Your task to perform on an android device: toggle notifications settings in the gmail app Image 0: 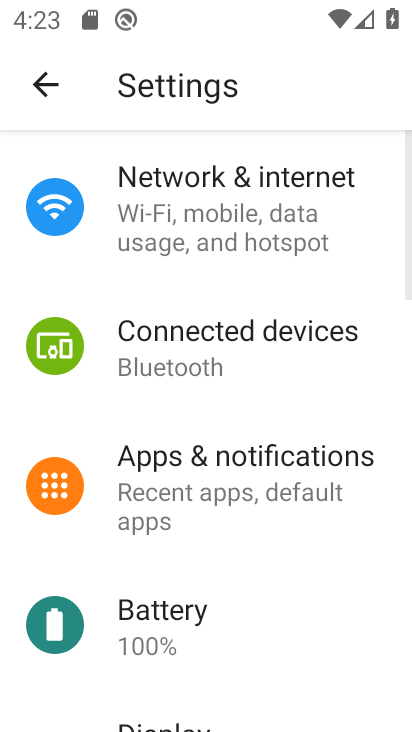
Step 0: press home button
Your task to perform on an android device: toggle notifications settings in the gmail app Image 1: 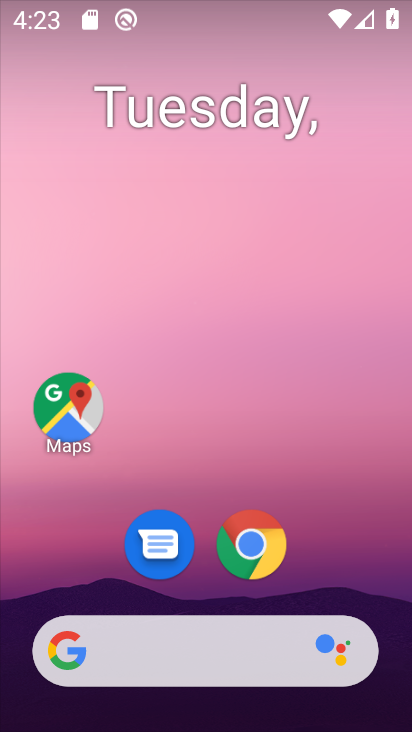
Step 1: drag from (196, 595) to (210, 299)
Your task to perform on an android device: toggle notifications settings in the gmail app Image 2: 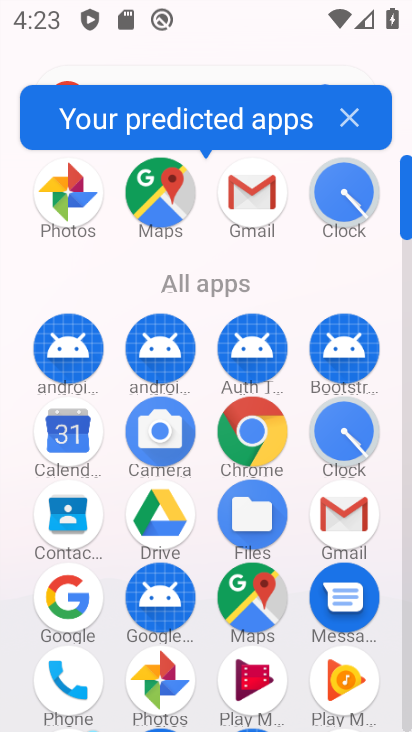
Step 2: drag from (191, 554) to (215, 266)
Your task to perform on an android device: toggle notifications settings in the gmail app Image 3: 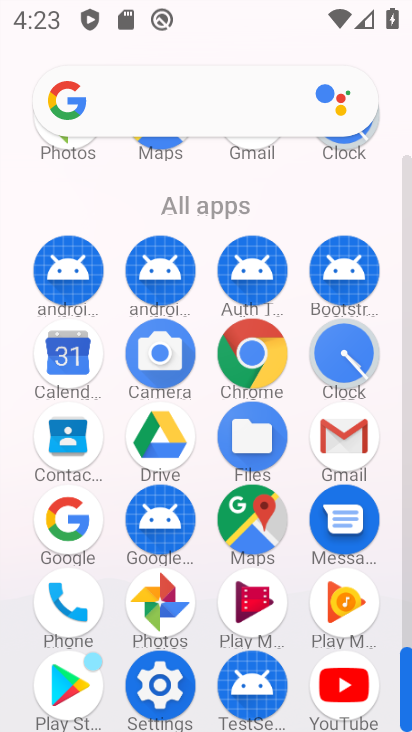
Step 3: click (341, 445)
Your task to perform on an android device: toggle notifications settings in the gmail app Image 4: 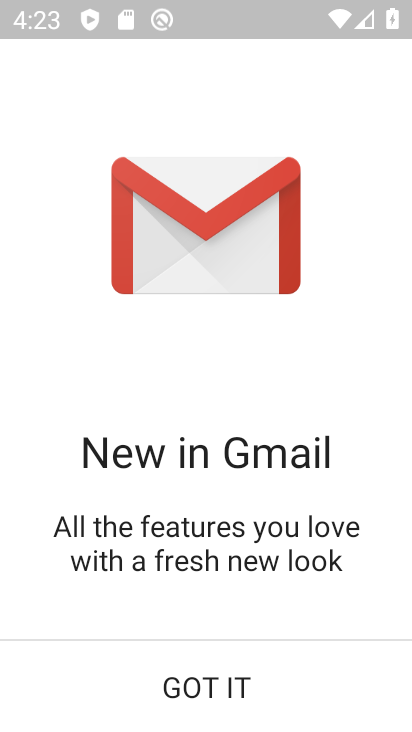
Step 4: click (223, 692)
Your task to perform on an android device: toggle notifications settings in the gmail app Image 5: 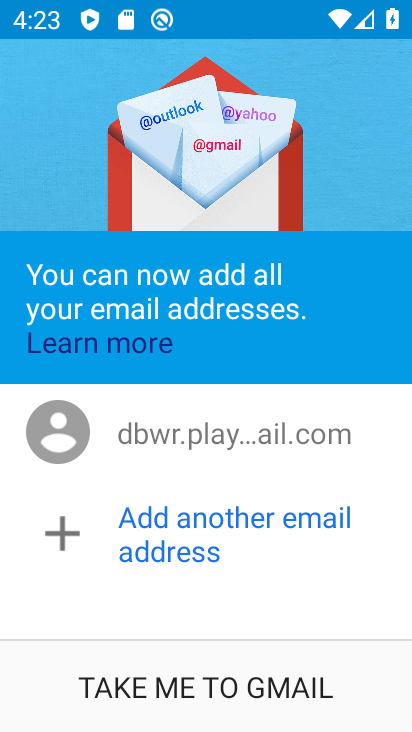
Step 5: click (223, 692)
Your task to perform on an android device: toggle notifications settings in the gmail app Image 6: 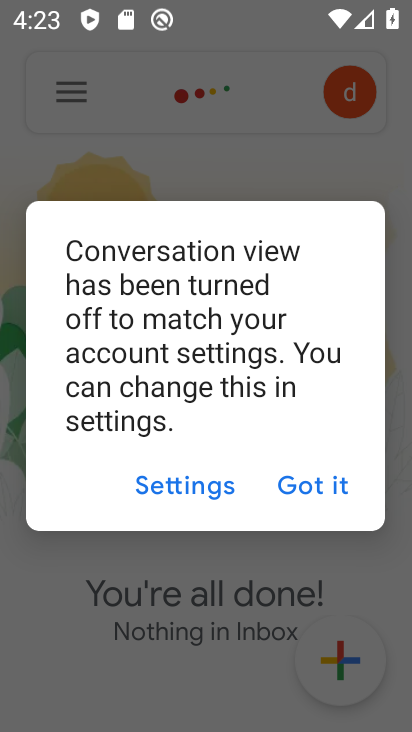
Step 6: click (185, 496)
Your task to perform on an android device: toggle notifications settings in the gmail app Image 7: 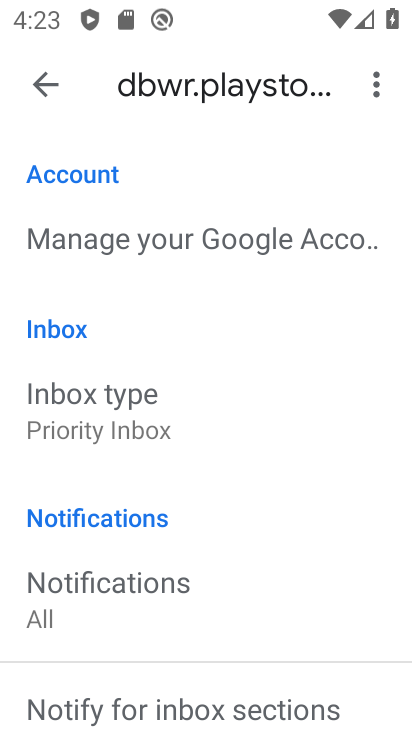
Step 7: click (48, 100)
Your task to perform on an android device: toggle notifications settings in the gmail app Image 8: 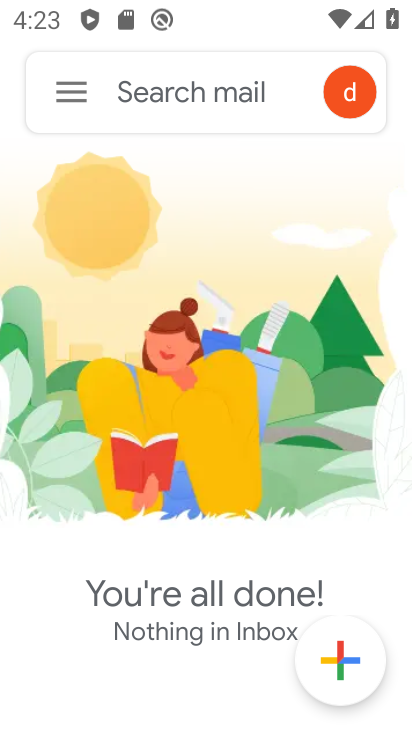
Step 8: click (79, 98)
Your task to perform on an android device: toggle notifications settings in the gmail app Image 9: 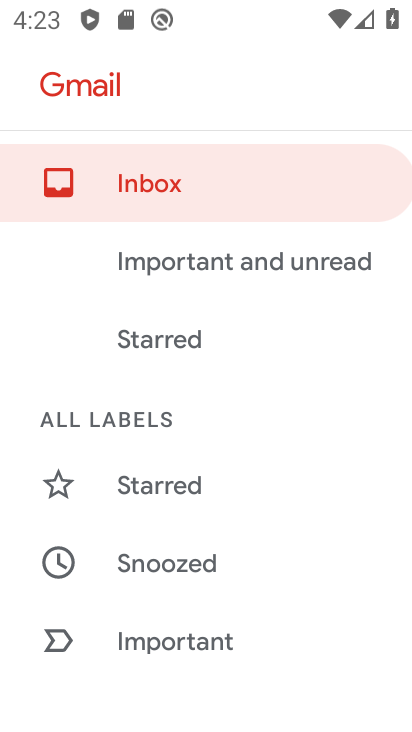
Step 9: drag from (118, 584) to (164, 367)
Your task to perform on an android device: toggle notifications settings in the gmail app Image 10: 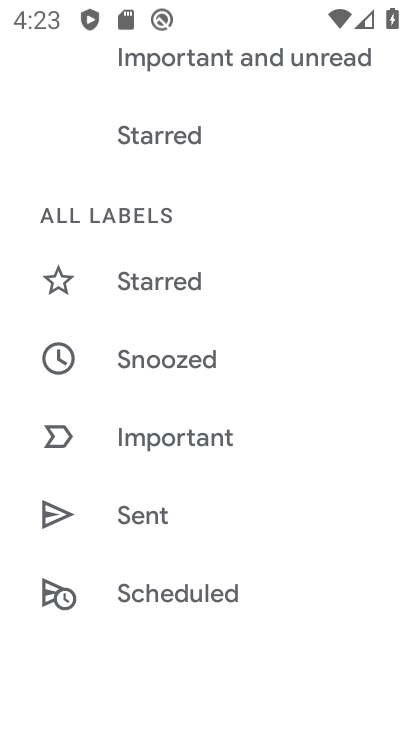
Step 10: drag from (134, 560) to (216, 157)
Your task to perform on an android device: toggle notifications settings in the gmail app Image 11: 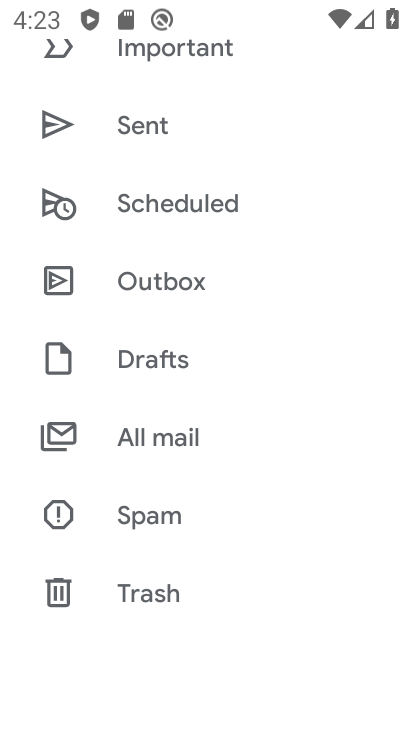
Step 11: drag from (178, 528) to (265, 91)
Your task to perform on an android device: toggle notifications settings in the gmail app Image 12: 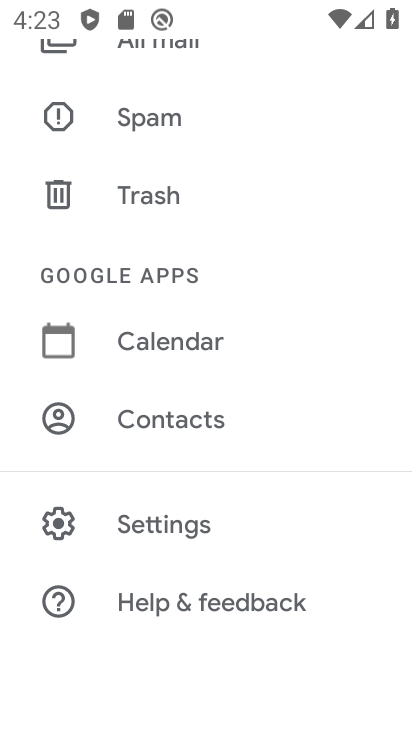
Step 12: click (167, 518)
Your task to perform on an android device: toggle notifications settings in the gmail app Image 13: 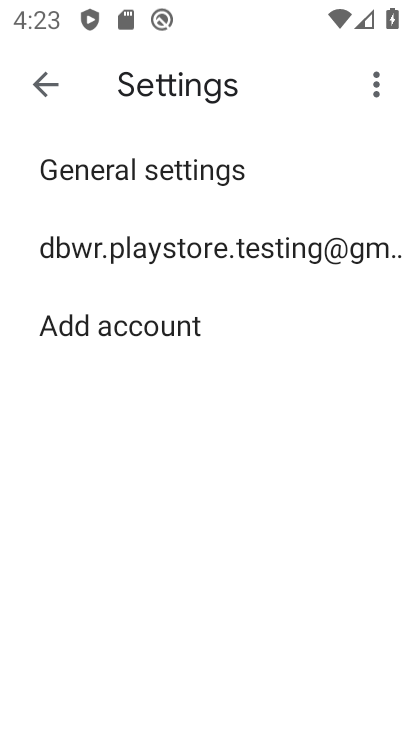
Step 13: click (142, 168)
Your task to perform on an android device: toggle notifications settings in the gmail app Image 14: 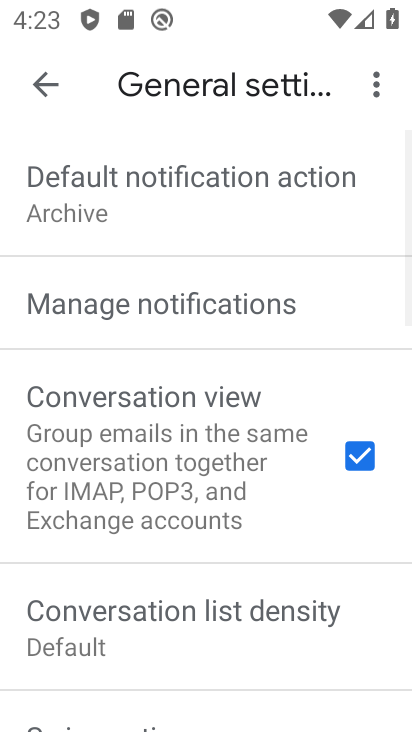
Step 14: click (162, 302)
Your task to perform on an android device: toggle notifications settings in the gmail app Image 15: 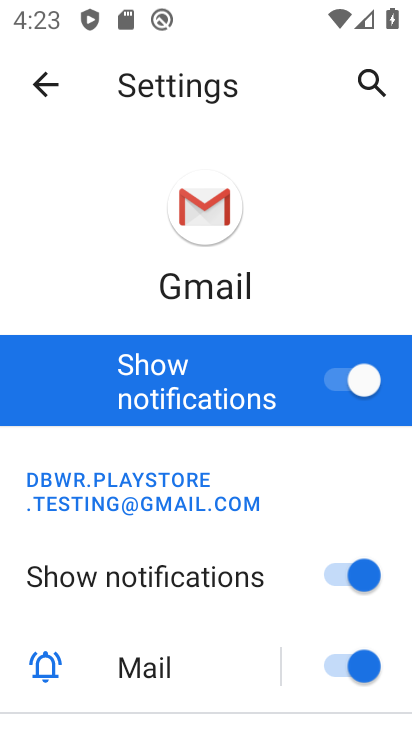
Step 15: click (298, 367)
Your task to perform on an android device: toggle notifications settings in the gmail app Image 16: 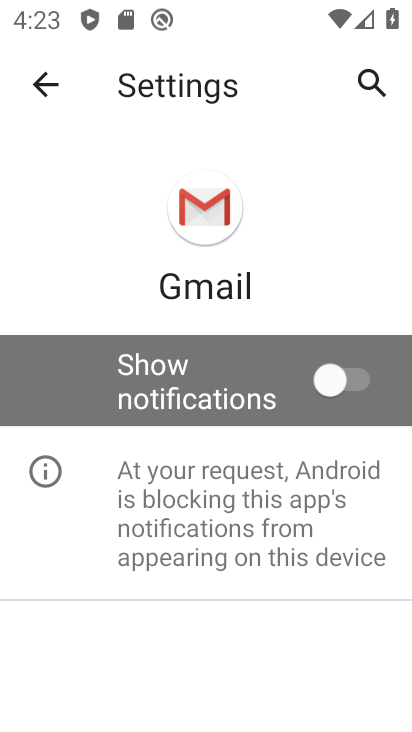
Step 16: task complete